Your task to perform on an android device: turn off improve location accuracy Image 0: 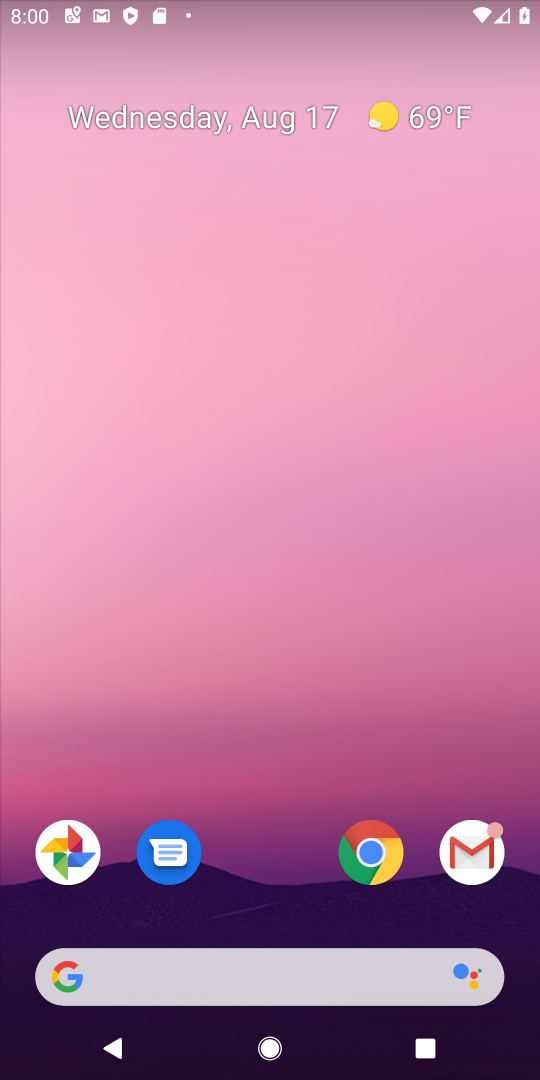
Step 0: drag from (285, 917) to (204, 410)
Your task to perform on an android device: turn off improve location accuracy Image 1: 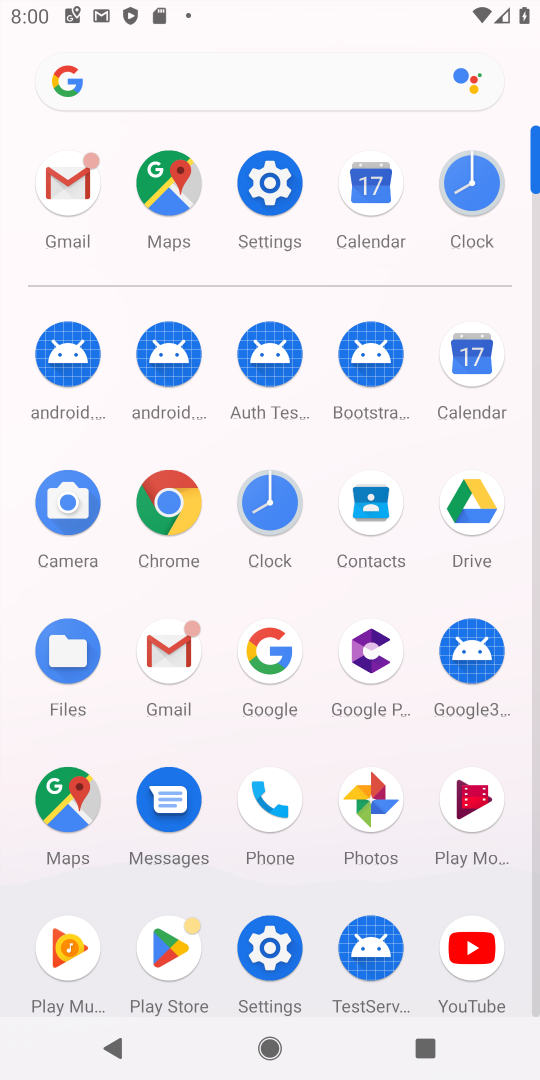
Step 1: click (271, 186)
Your task to perform on an android device: turn off improve location accuracy Image 2: 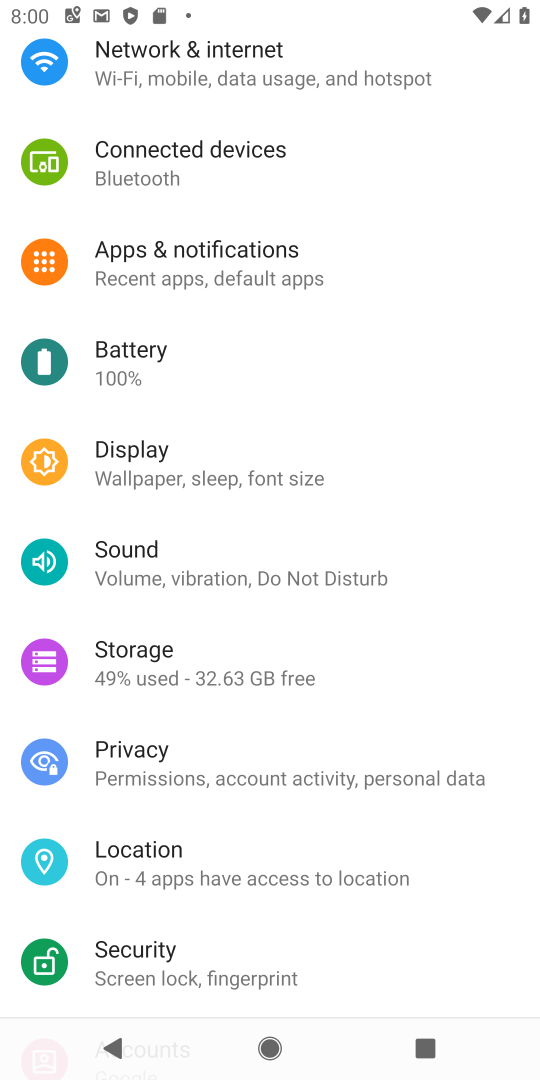
Step 2: click (149, 863)
Your task to perform on an android device: turn off improve location accuracy Image 3: 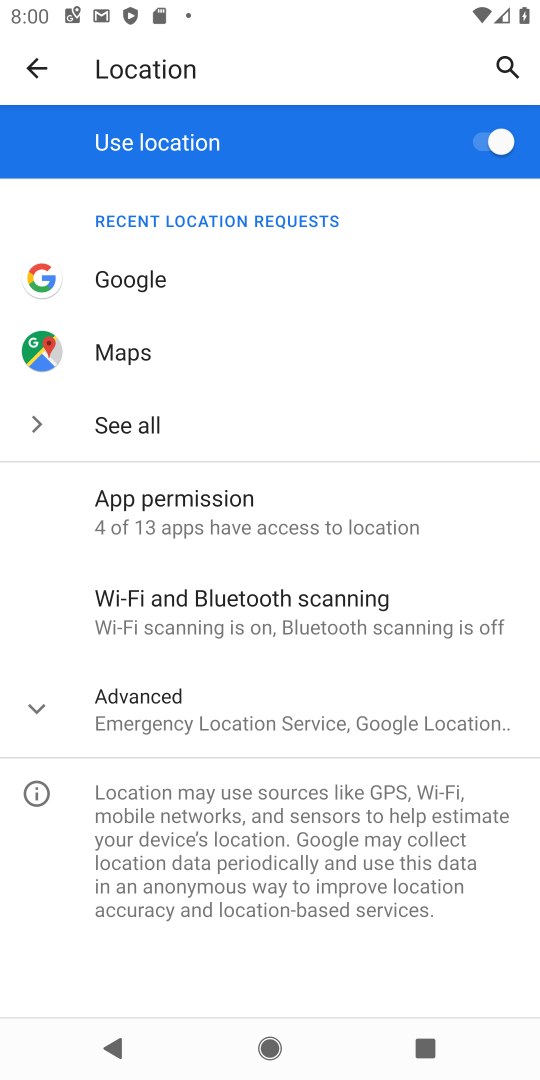
Step 3: click (119, 723)
Your task to perform on an android device: turn off improve location accuracy Image 4: 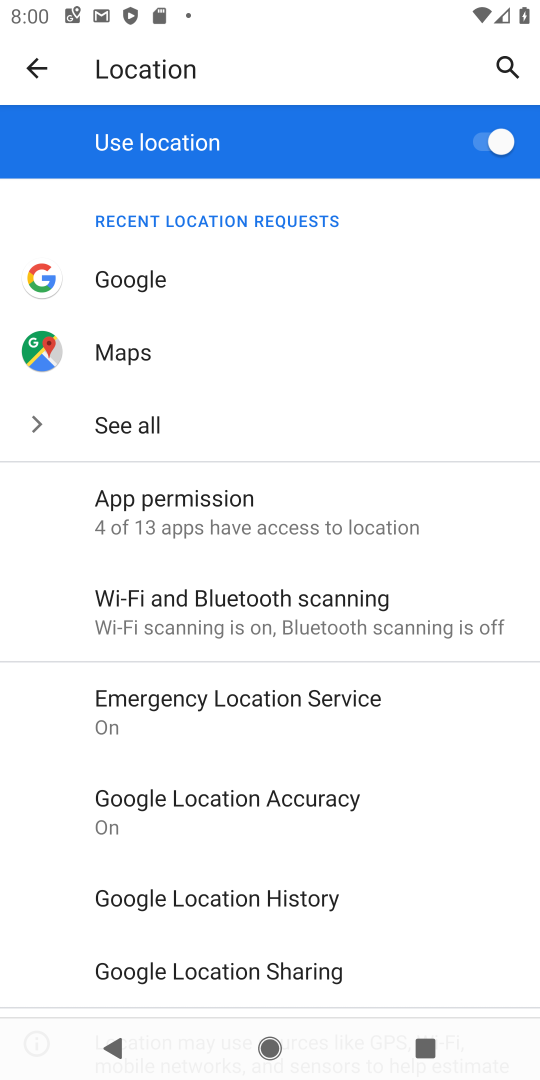
Step 4: click (220, 791)
Your task to perform on an android device: turn off improve location accuracy Image 5: 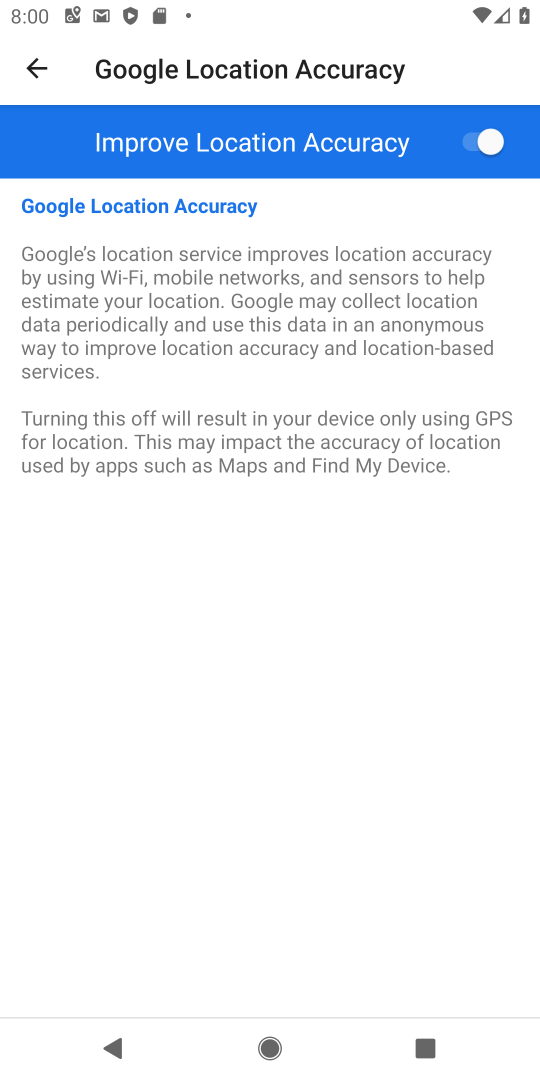
Step 5: click (485, 144)
Your task to perform on an android device: turn off improve location accuracy Image 6: 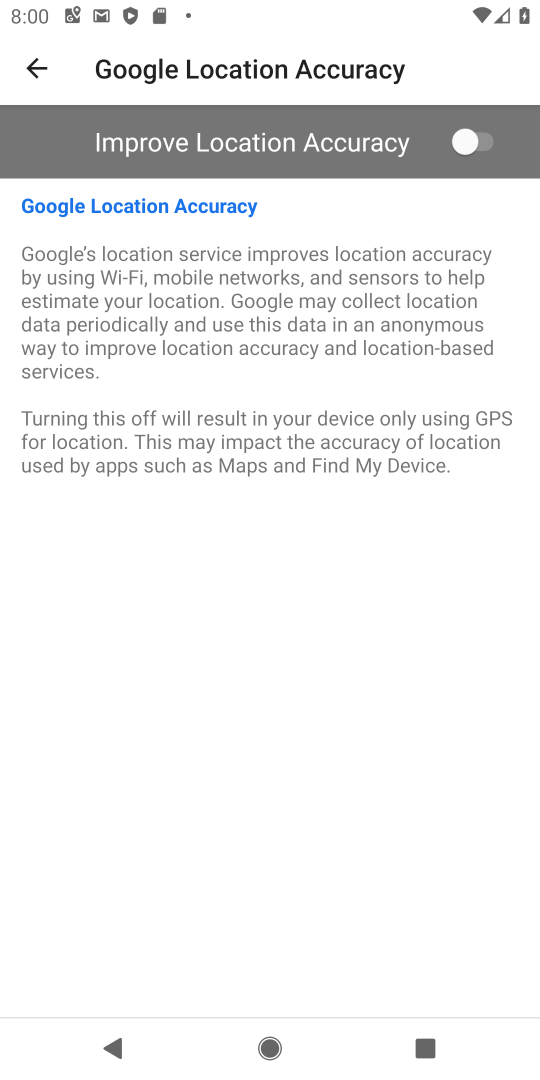
Step 6: task complete